Your task to perform on an android device: change the clock style Image 0: 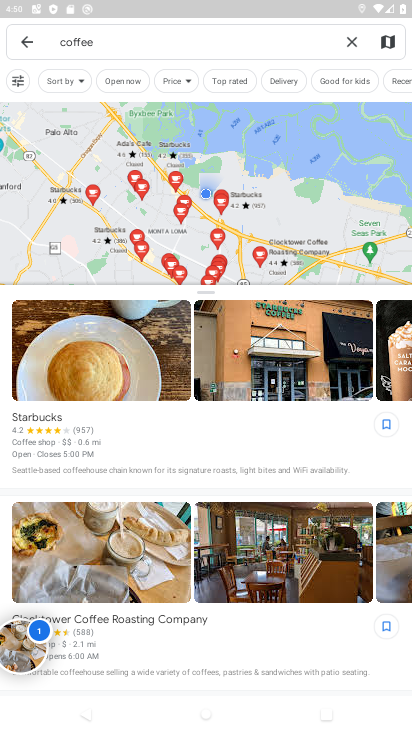
Step 0: press home button
Your task to perform on an android device: change the clock style Image 1: 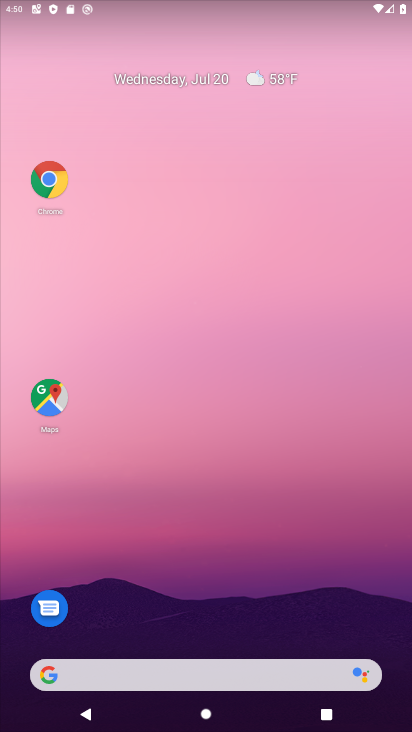
Step 1: drag from (217, 649) to (93, 192)
Your task to perform on an android device: change the clock style Image 2: 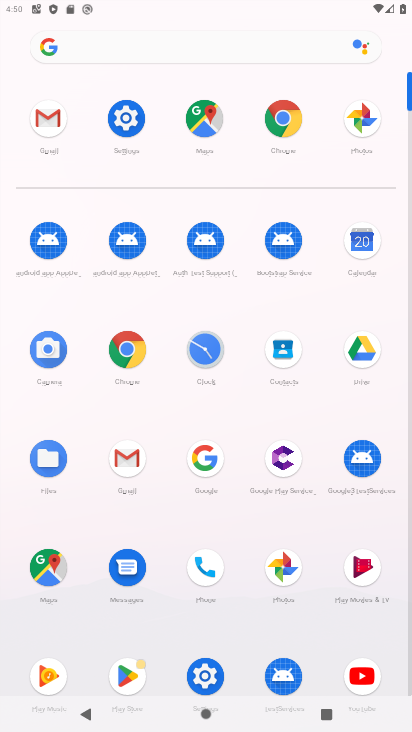
Step 2: click (197, 353)
Your task to perform on an android device: change the clock style Image 3: 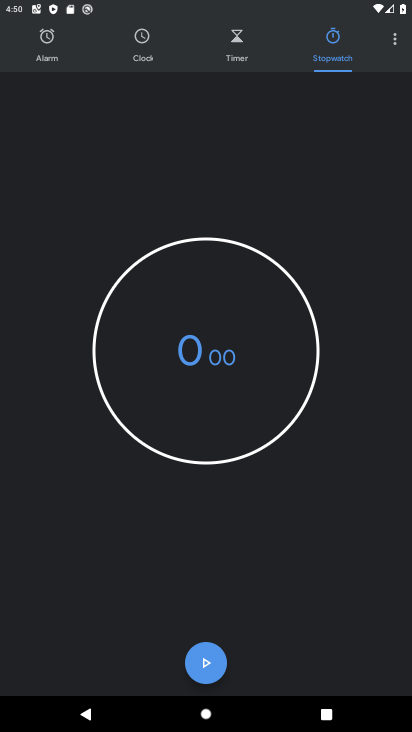
Step 3: click (398, 39)
Your task to perform on an android device: change the clock style Image 4: 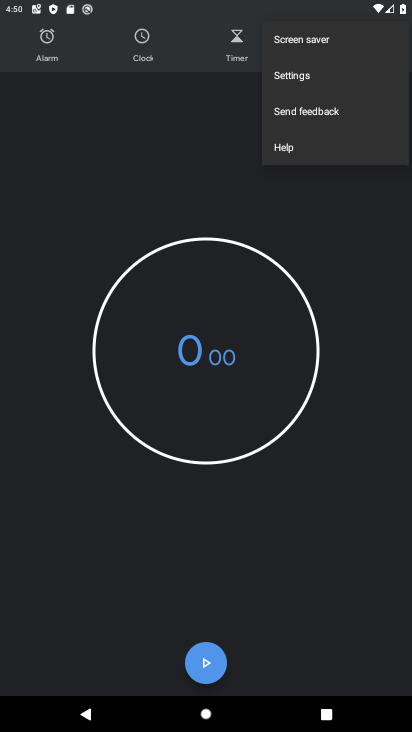
Step 4: click (297, 73)
Your task to perform on an android device: change the clock style Image 5: 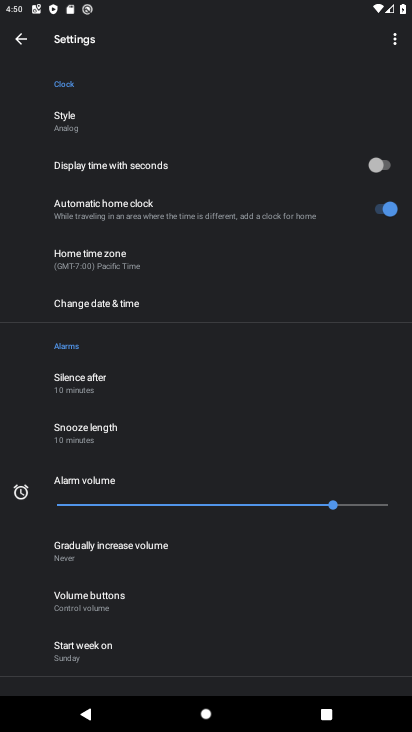
Step 5: click (88, 117)
Your task to perform on an android device: change the clock style Image 6: 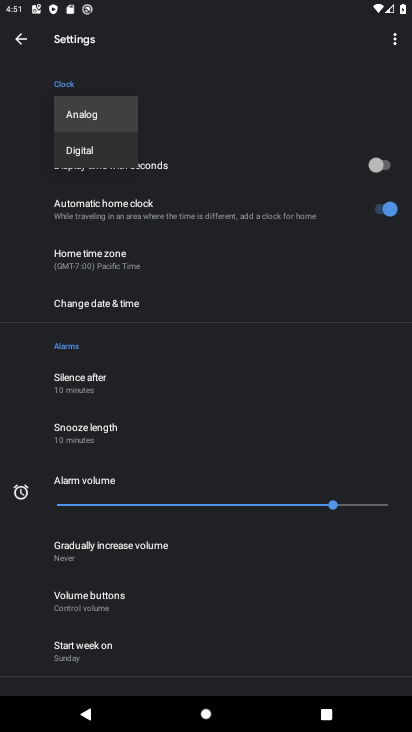
Step 6: click (129, 123)
Your task to perform on an android device: change the clock style Image 7: 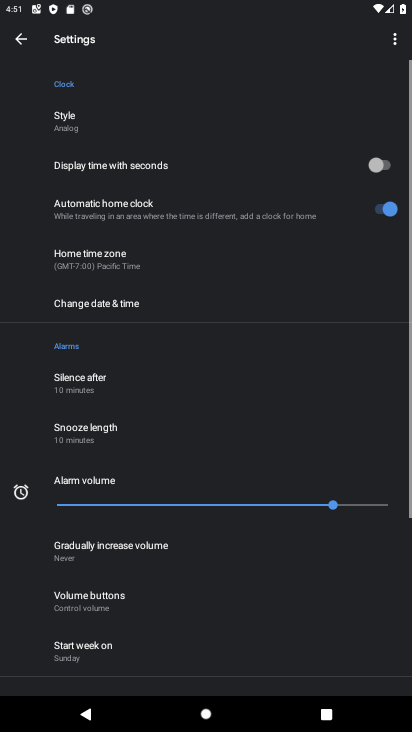
Step 7: task complete